Your task to perform on an android device: allow cookies in the chrome app Image 0: 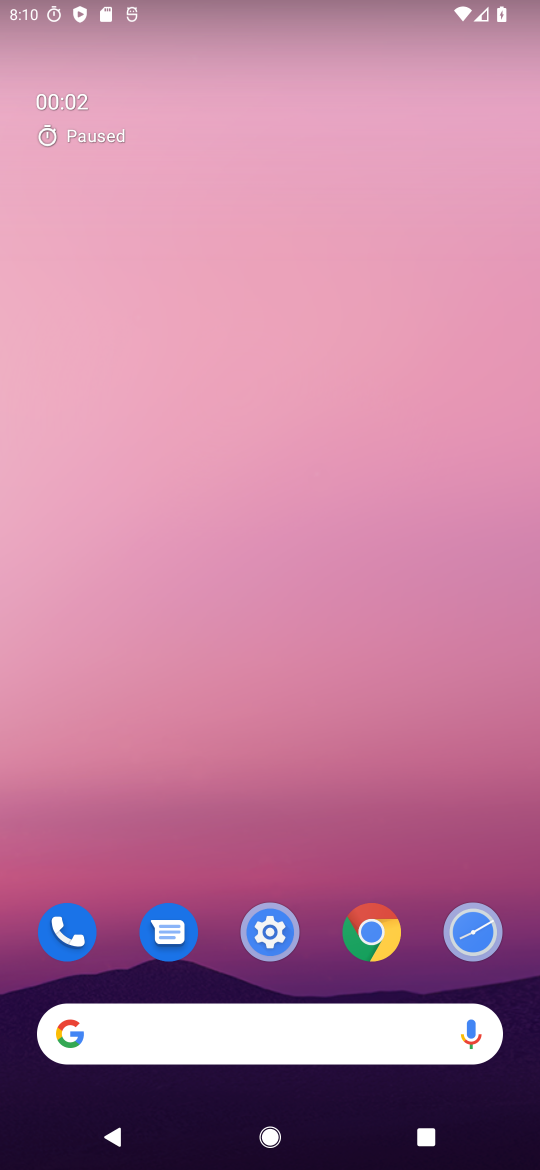
Step 0: press home button
Your task to perform on an android device: allow cookies in the chrome app Image 1: 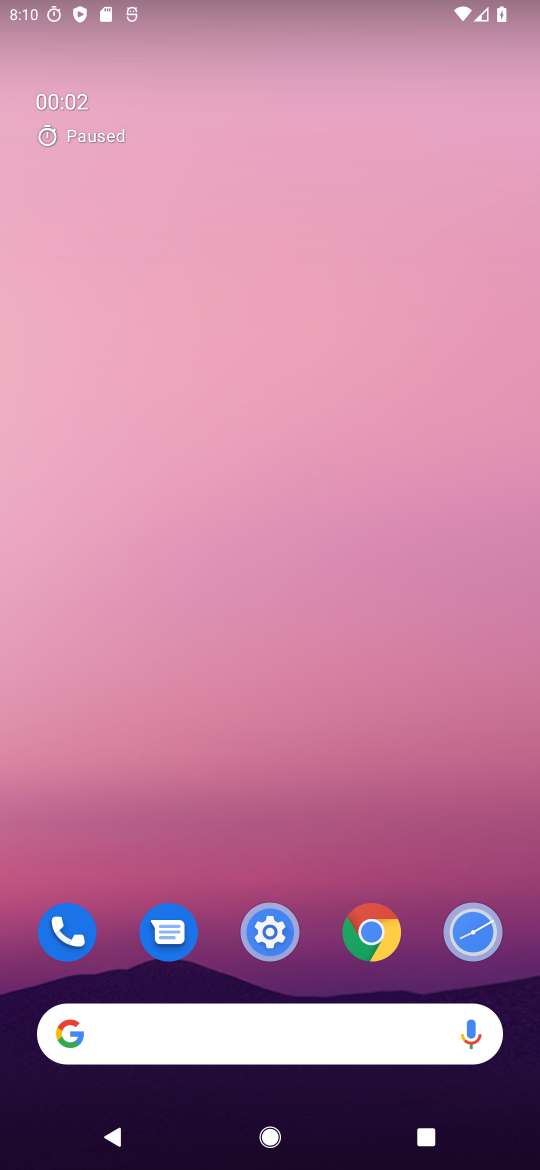
Step 1: click (365, 927)
Your task to perform on an android device: allow cookies in the chrome app Image 2: 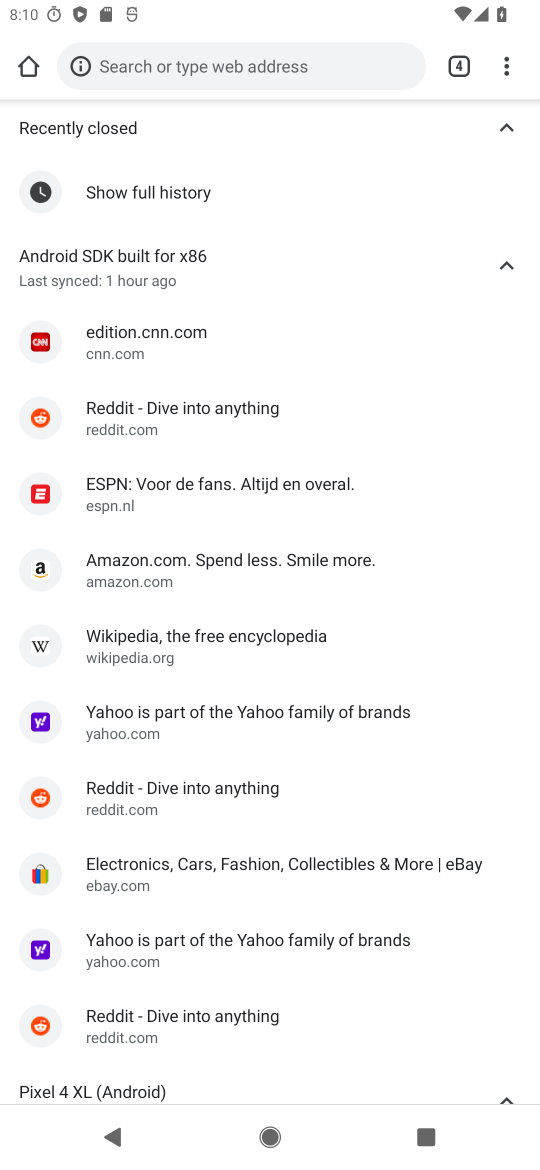
Step 2: drag from (510, 61) to (387, 637)
Your task to perform on an android device: allow cookies in the chrome app Image 3: 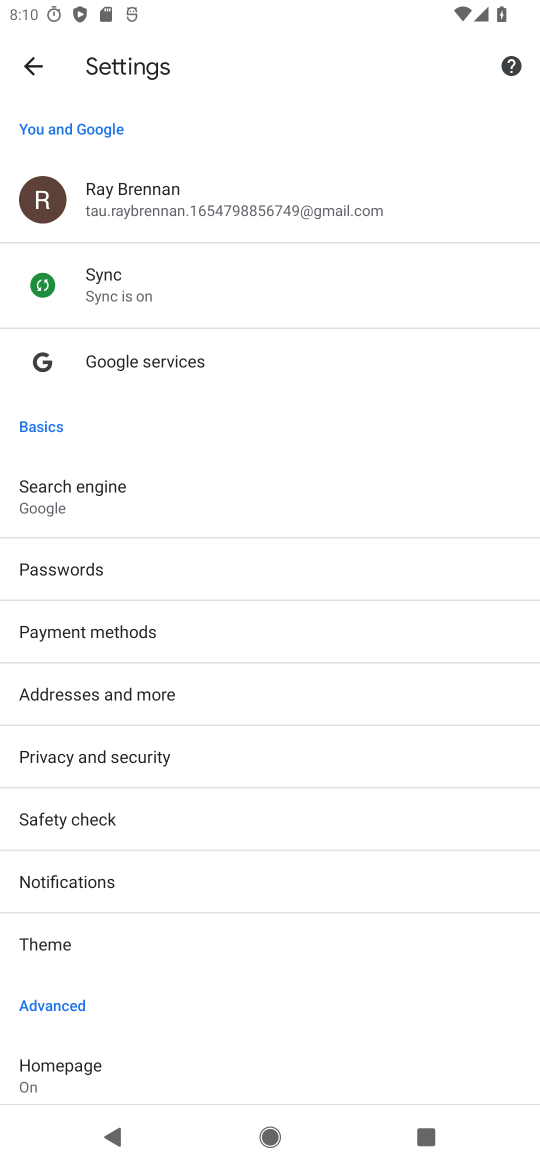
Step 3: drag from (254, 967) to (414, 186)
Your task to perform on an android device: allow cookies in the chrome app Image 4: 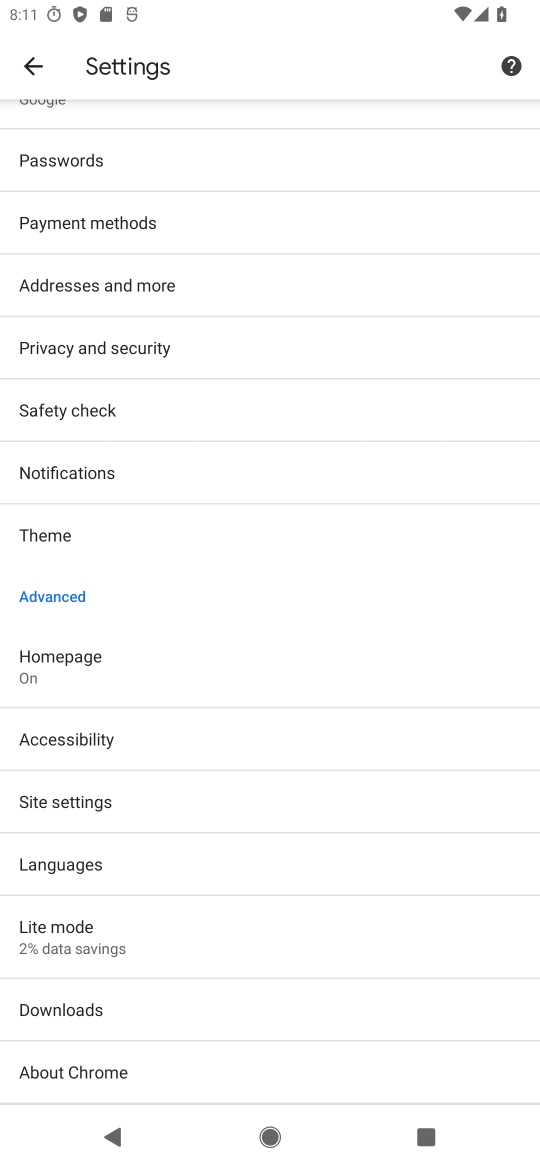
Step 4: click (54, 800)
Your task to perform on an android device: allow cookies in the chrome app Image 5: 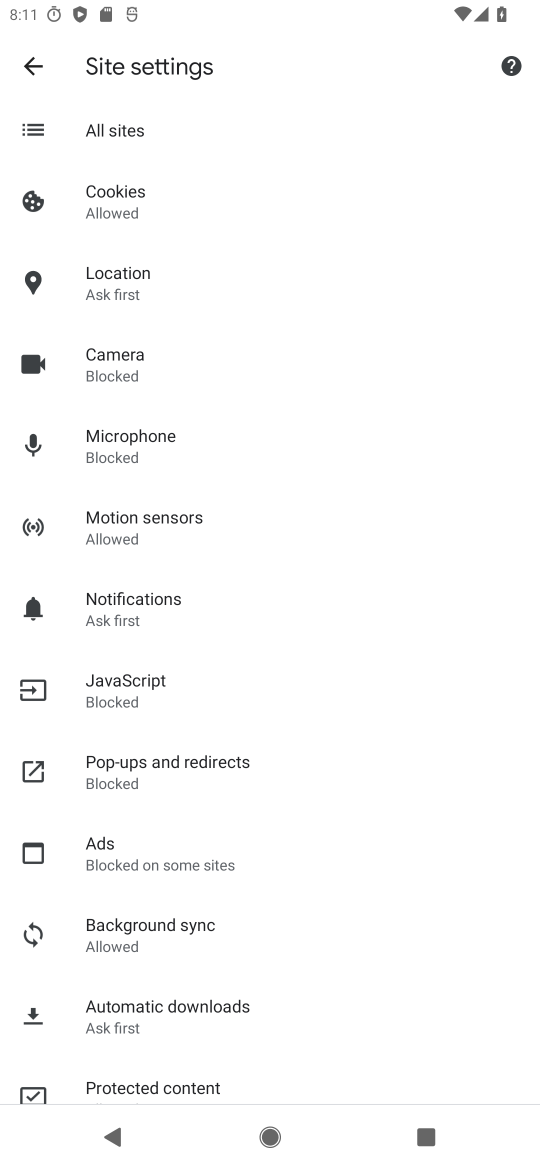
Step 5: click (127, 206)
Your task to perform on an android device: allow cookies in the chrome app Image 6: 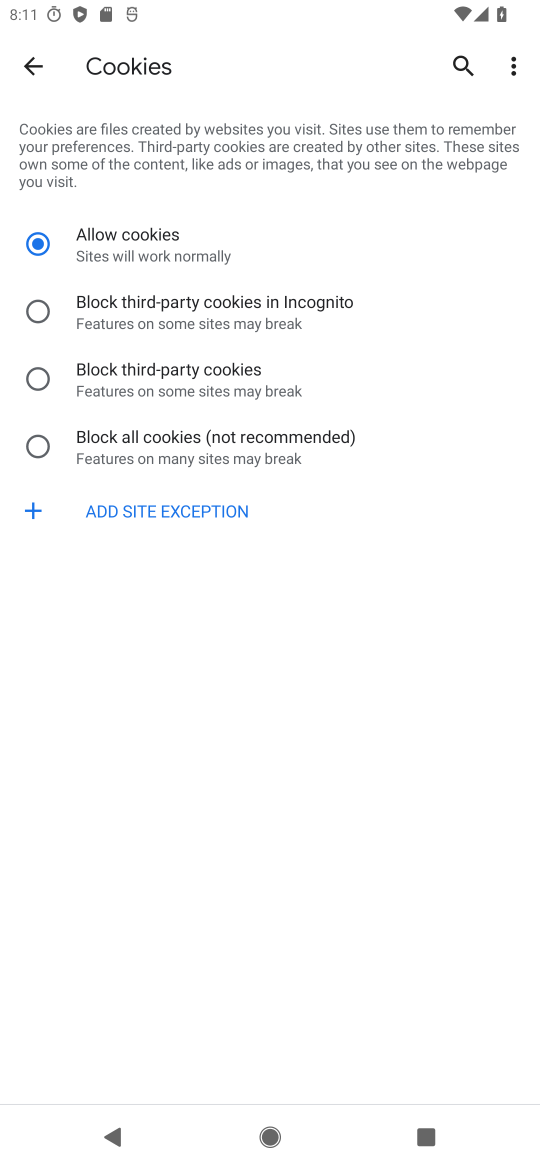
Step 6: task complete